Your task to perform on an android device: move a message to another label in the gmail app Image 0: 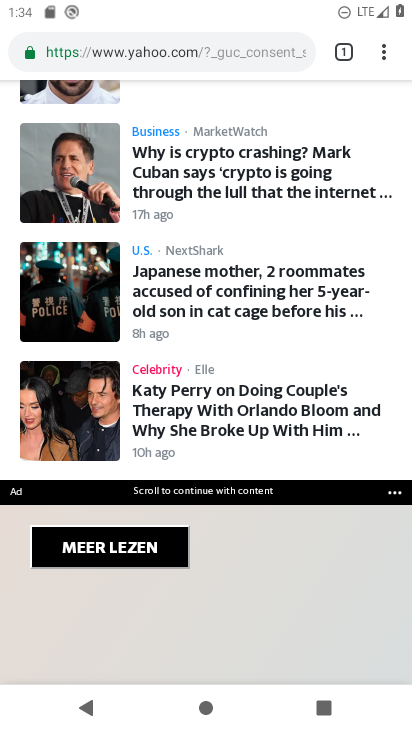
Step 0: drag from (200, 617) to (190, 248)
Your task to perform on an android device: move a message to another label in the gmail app Image 1: 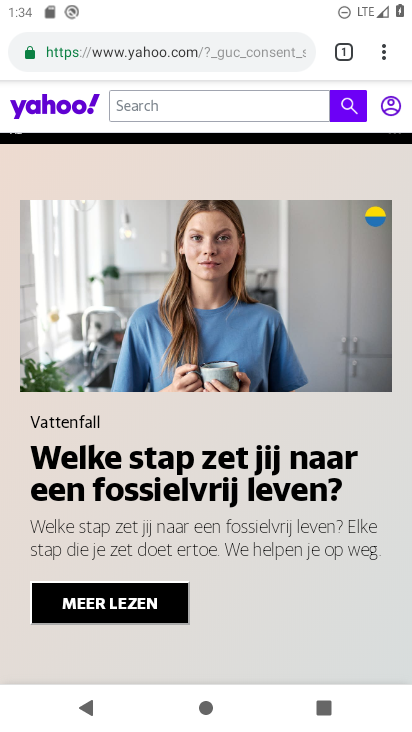
Step 1: press home button
Your task to perform on an android device: move a message to another label in the gmail app Image 2: 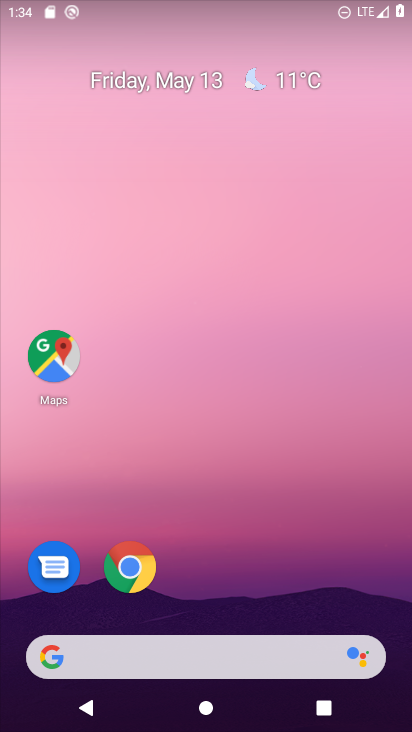
Step 2: drag from (204, 608) to (208, 88)
Your task to perform on an android device: move a message to another label in the gmail app Image 3: 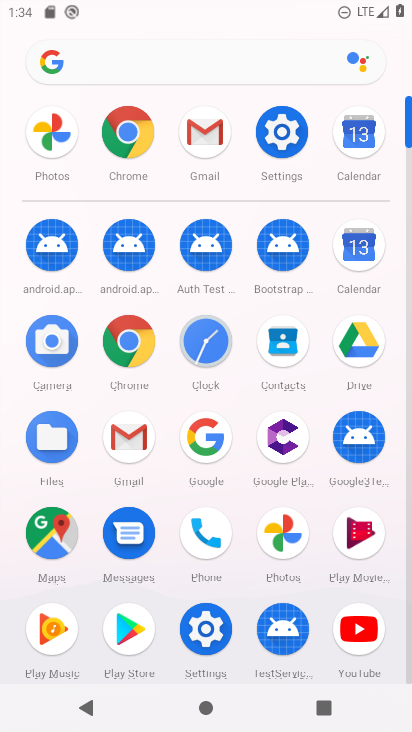
Step 3: click (206, 124)
Your task to perform on an android device: move a message to another label in the gmail app Image 4: 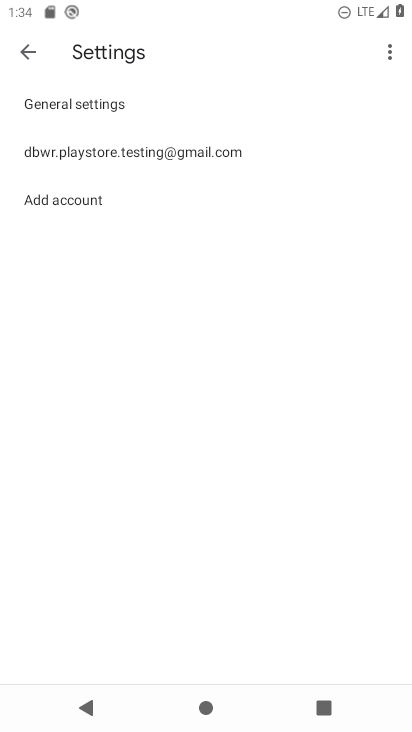
Step 4: click (27, 49)
Your task to perform on an android device: move a message to another label in the gmail app Image 5: 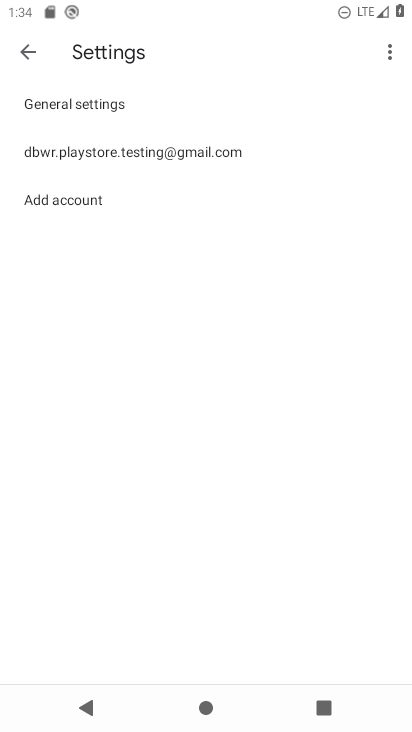
Step 5: click (27, 48)
Your task to perform on an android device: move a message to another label in the gmail app Image 6: 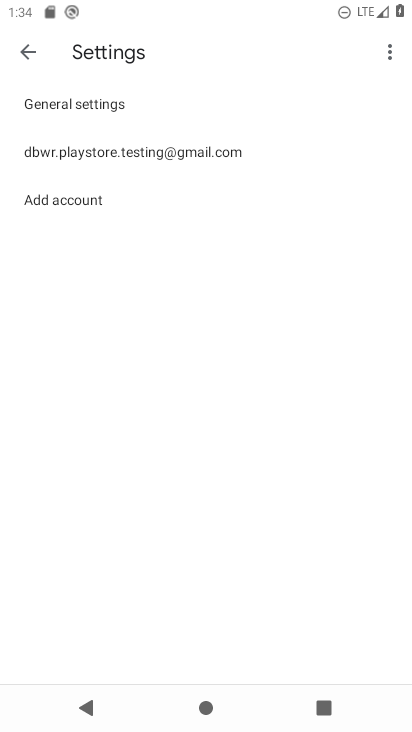
Step 6: click (29, 51)
Your task to perform on an android device: move a message to another label in the gmail app Image 7: 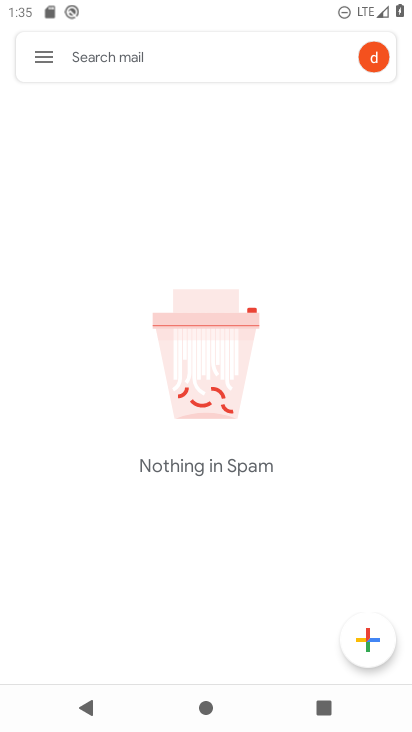
Step 7: click (41, 53)
Your task to perform on an android device: move a message to another label in the gmail app Image 8: 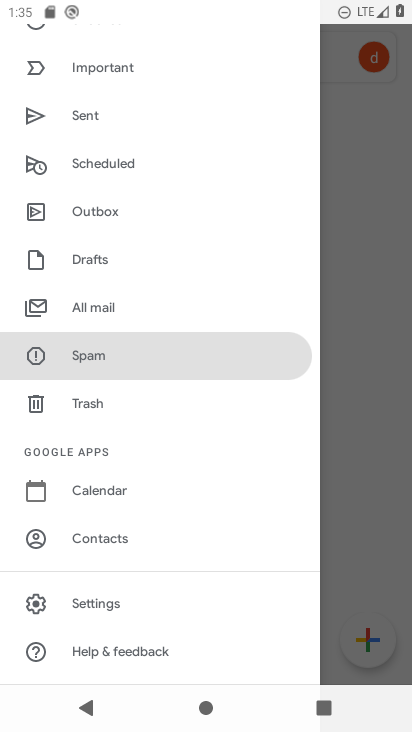
Step 8: click (100, 297)
Your task to perform on an android device: move a message to another label in the gmail app Image 9: 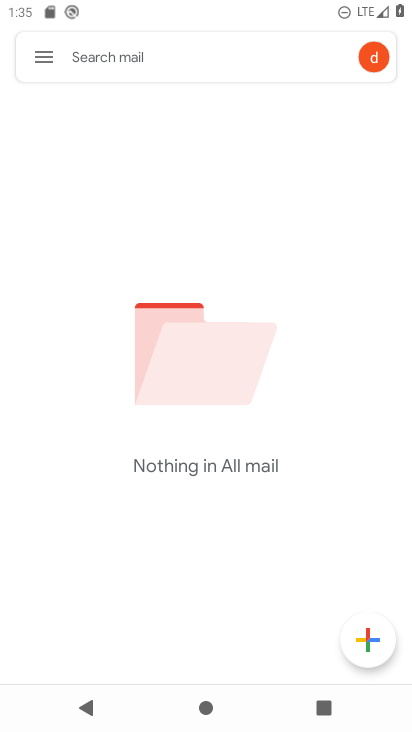
Step 9: task complete